Your task to perform on an android device: find photos in the google photos app Image 0: 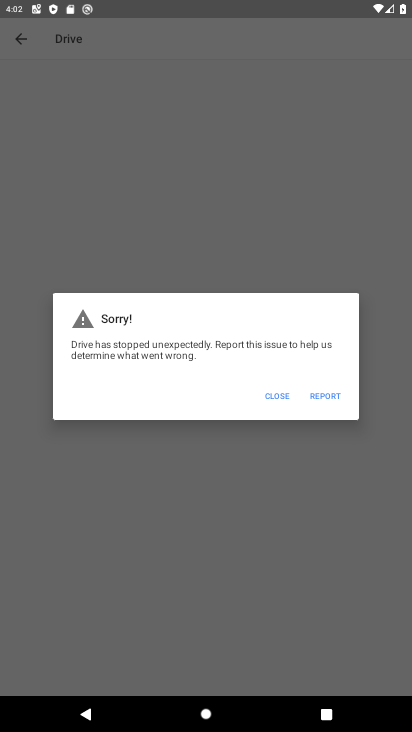
Step 0: press home button
Your task to perform on an android device: find photos in the google photos app Image 1: 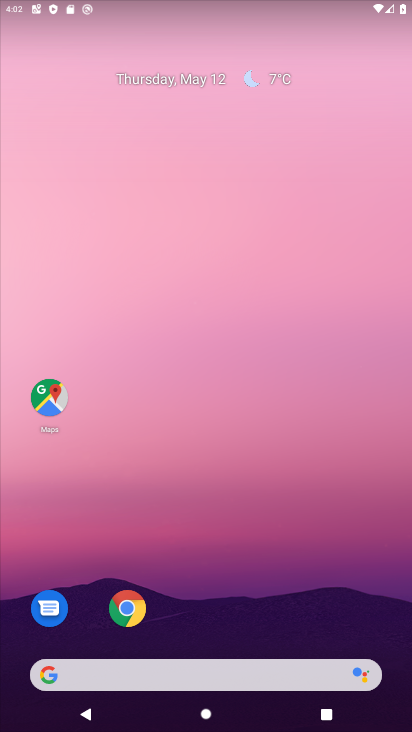
Step 1: drag from (218, 633) to (257, 256)
Your task to perform on an android device: find photos in the google photos app Image 2: 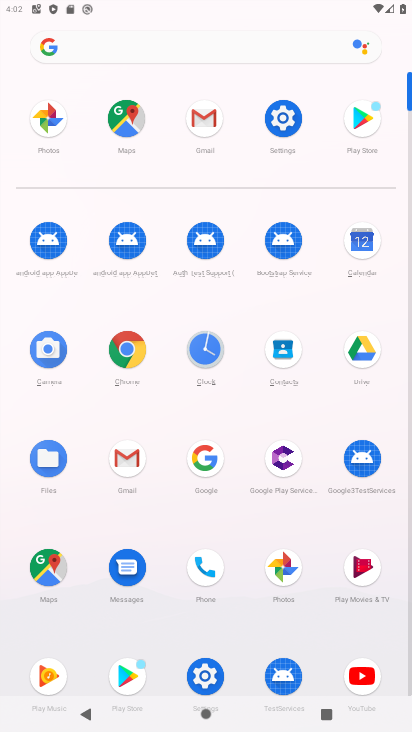
Step 2: click (280, 562)
Your task to perform on an android device: find photos in the google photos app Image 3: 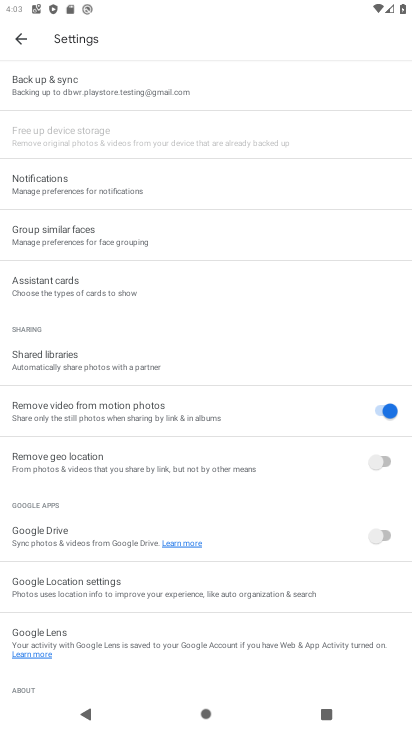
Step 3: click (17, 42)
Your task to perform on an android device: find photos in the google photos app Image 4: 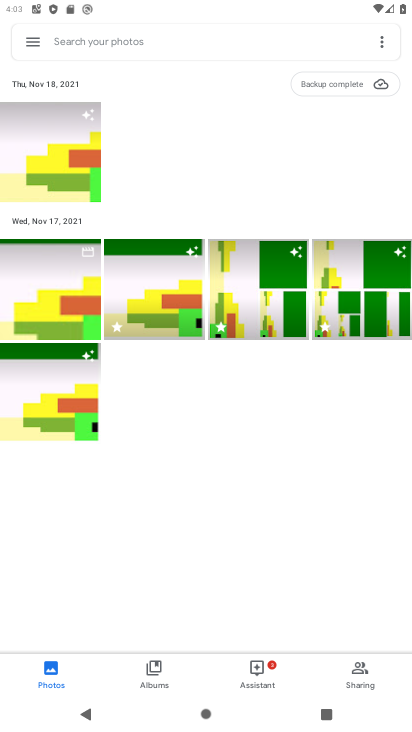
Step 4: task complete